Your task to perform on an android device: turn off picture-in-picture Image 0: 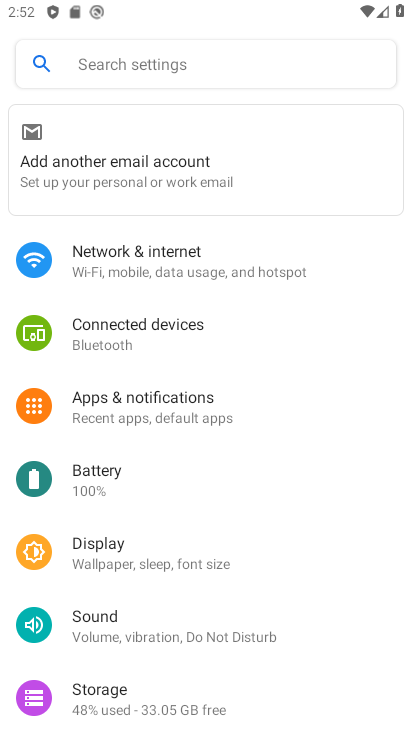
Step 0: press home button
Your task to perform on an android device: turn off picture-in-picture Image 1: 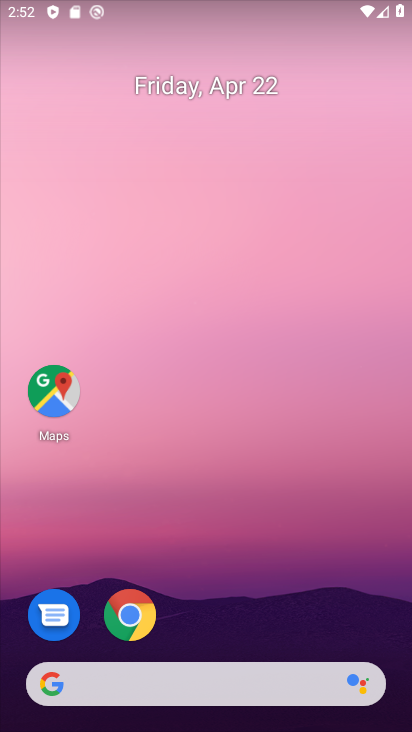
Step 1: click (133, 616)
Your task to perform on an android device: turn off picture-in-picture Image 2: 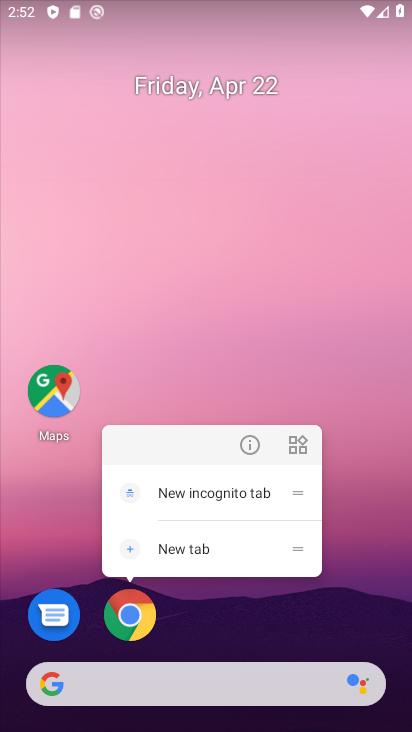
Step 2: click (249, 445)
Your task to perform on an android device: turn off picture-in-picture Image 3: 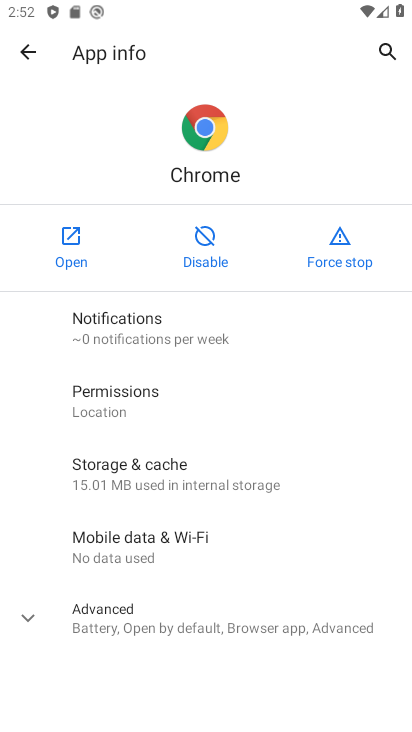
Step 3: click (25, 624)
Your task to perform on an android device: turn off picture-in-picture Image 4: 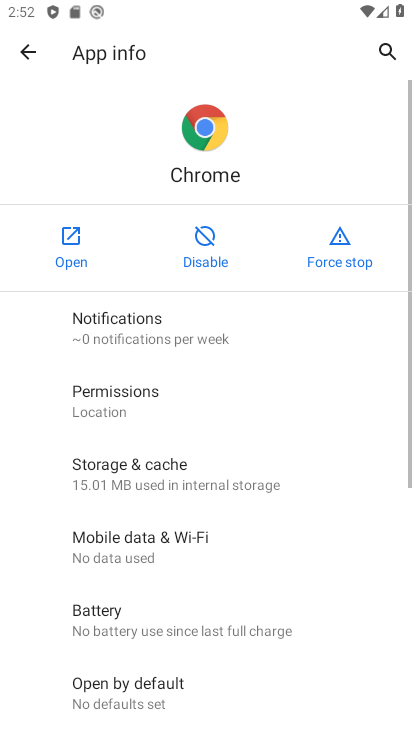
Step 4: drag from (175, 608) to (221, 195)
Your task to perform on an android device: turn off picture-in-picture Image 5: 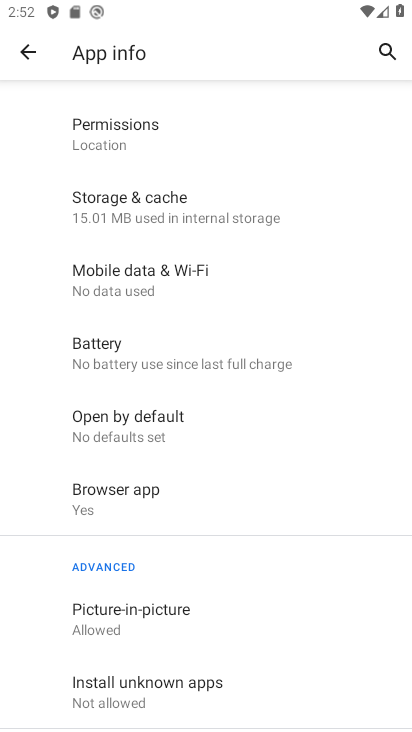
Step 5: click (131, 607)
Your task to perform on an android device: turn off picture-in-picture Image 6: 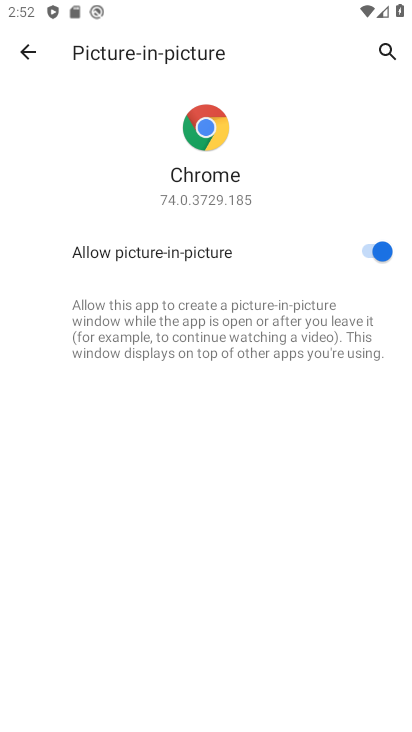
Step 6: click (376, 251)
Your task to perform on an android device: turn off picture-in-picture Image 7: 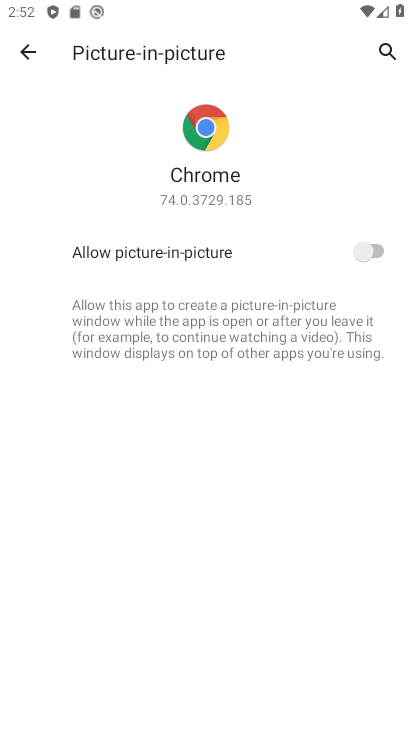
Step 7: task complete